Your task to perform on an android device: add a contact in the contacts app Image 0: 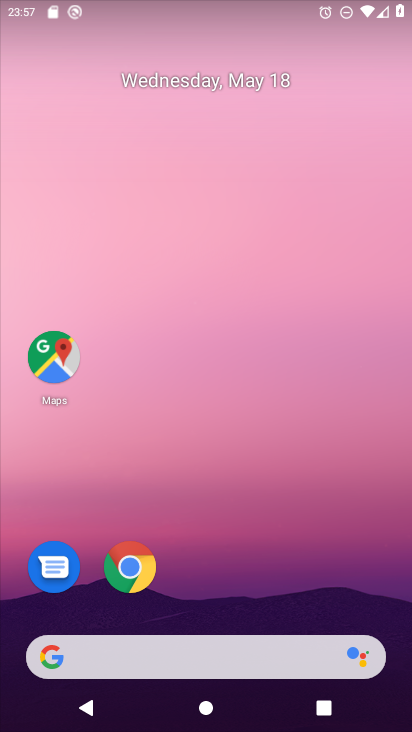
Step 0: drag from (274, 673) to (194, 184)
Your task to perform on an android device: add a contact in the contacts app Image 1: 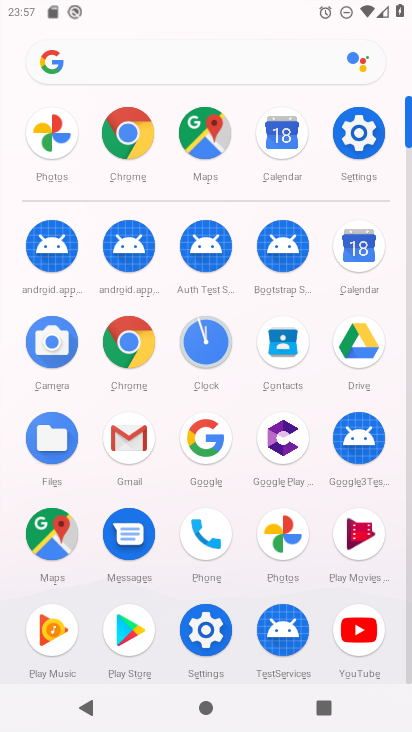
Step 1: click (212, 552)
Your task to perform on an android device: add a contact in the contacts app Image 2: 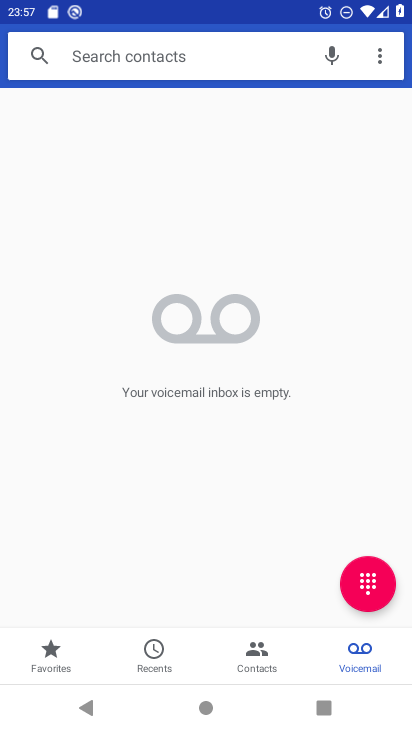
Step 2: click (256, 652)
Your task to perform on an android device: add a contact in the contacts app Image 3: 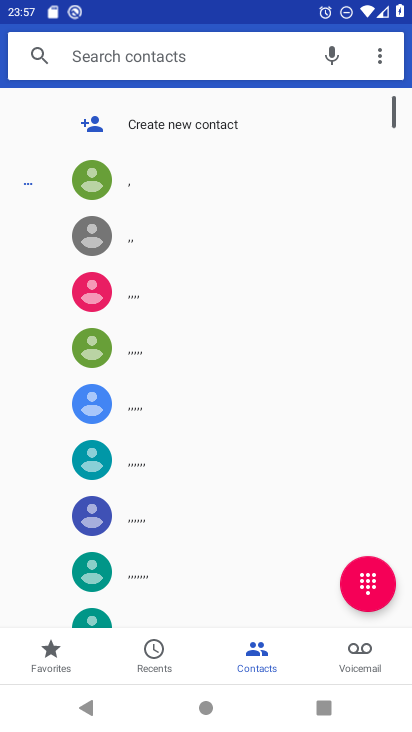
Step 3: click (156, 135)
Your task to perform on an android device: add a contact in the contacts app Image 4: 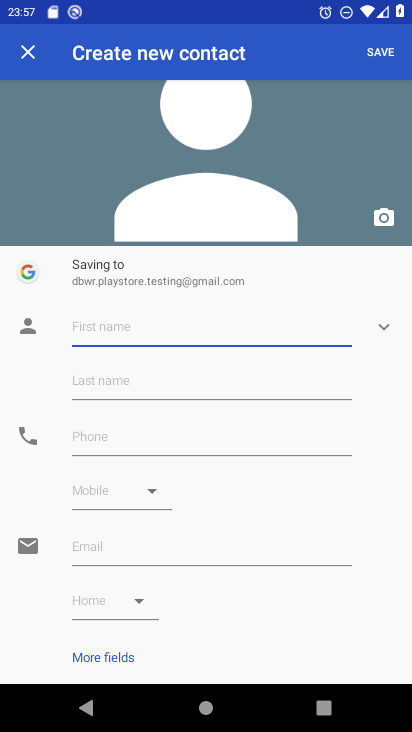
Step 4: click (103, 317)
Your task to perform on an android device: add a contact in the contacts app Image 5: 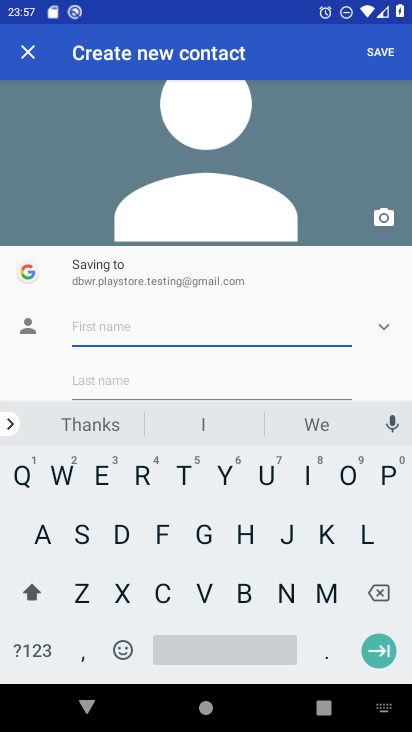
Step 5: click (238, 557)
Your task to perform on an android device: add a contact in the contacts app Image 6: 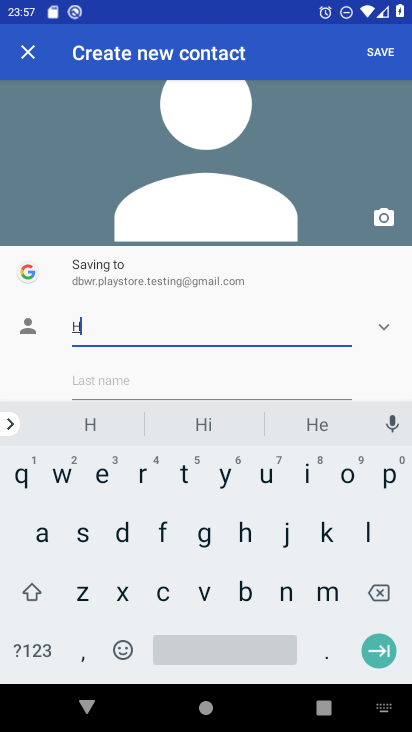
Step 6: click (149, 576)
Your task to perform on an android device: add a contact in the contacts app Image 7: 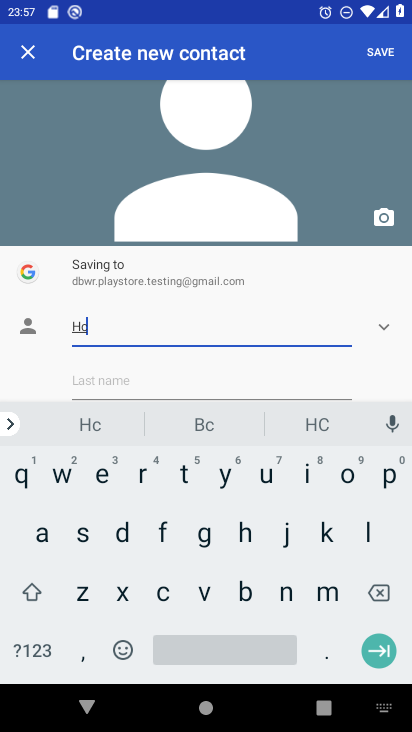
Step 7: click (118, 582)
Your task to perform on an android device: add a contact in the contacts app Image 8: 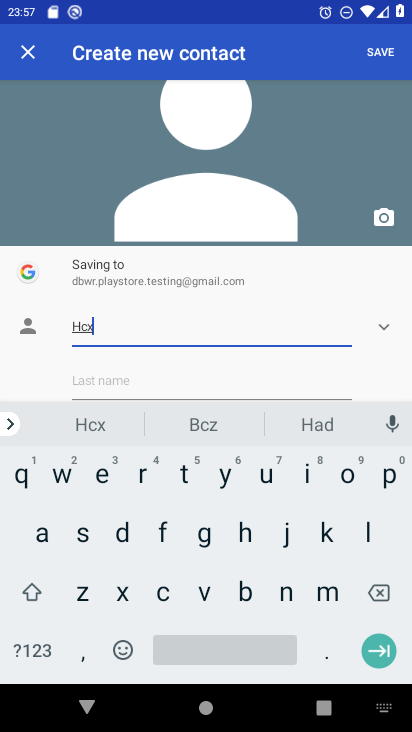
Step 8: drag from (155, 362) to (188, 238)
Your task to perform on an android device: add a contact in the contacts app Image 9: 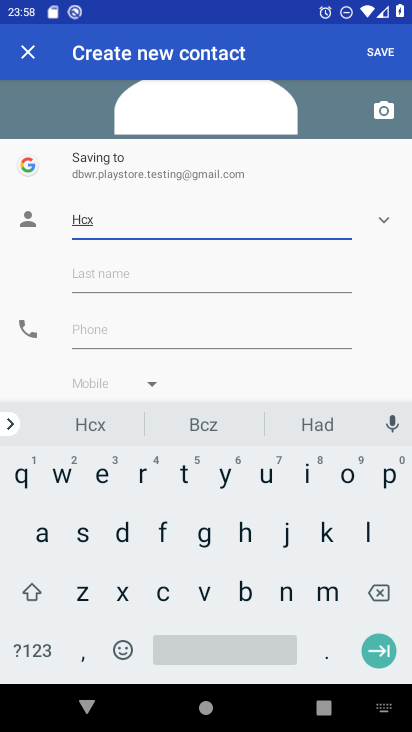
Step 9: click (133, 336)
Your task to perform on an android device: add a contact in the contacts app Image 10: 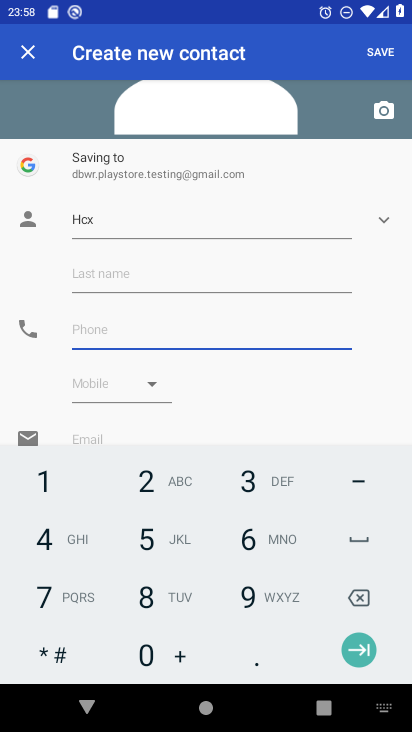
Step 10: click (168, 504)
Your task to perform on an android device: add a contact in the contacts app Image 11: 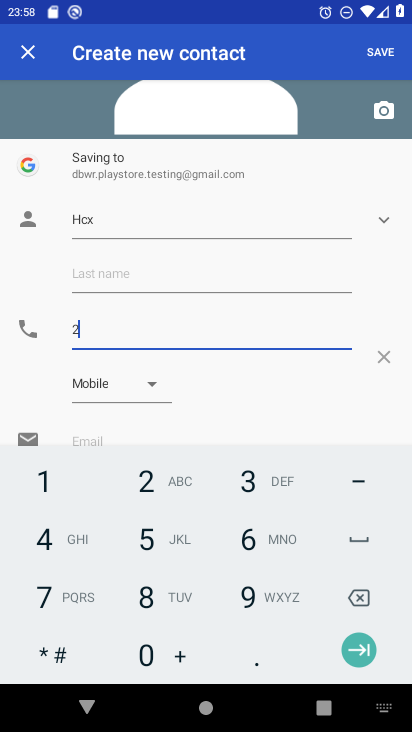
Step 11: click (108, 581)
Your task to perform on an android device: add a contact in the contacts app Image 12: 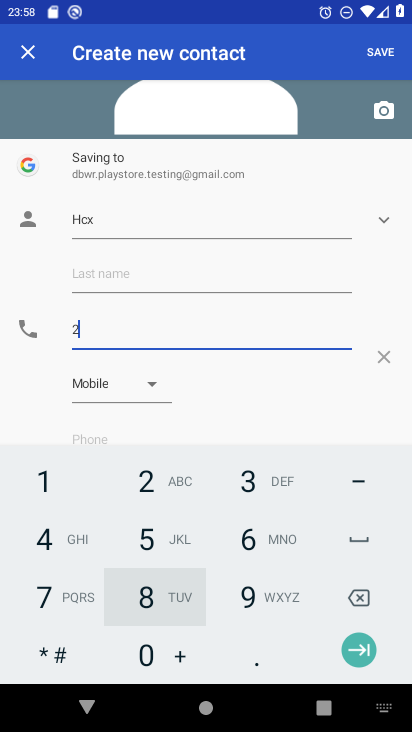
Step 12: click (57, 594)
Your task to perform on an android device: add a contact in the contacts app Image 13: 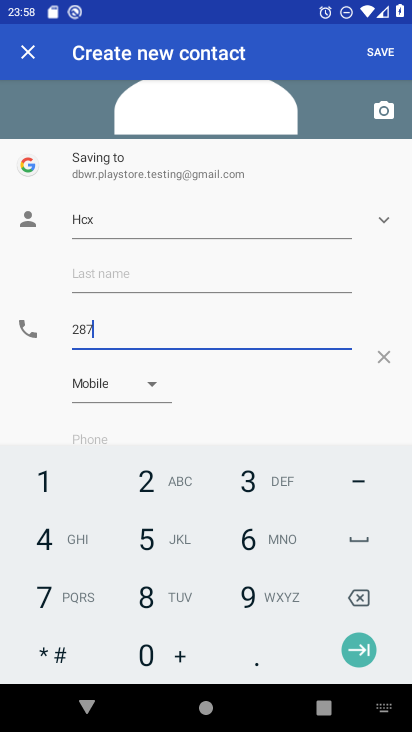
Step 13: click (137, 602)
Your task to perform on an android device: add a contact in the contacts app Image 14: 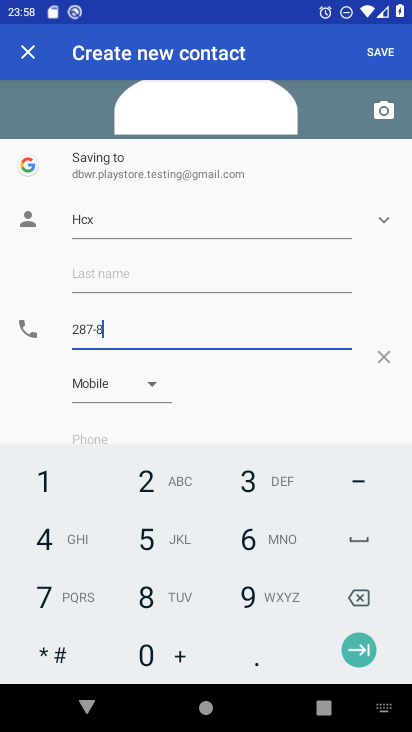
Step 14: click (159, 557)
Your task to perform on an android device: add a contact in the contacts app Image 15: 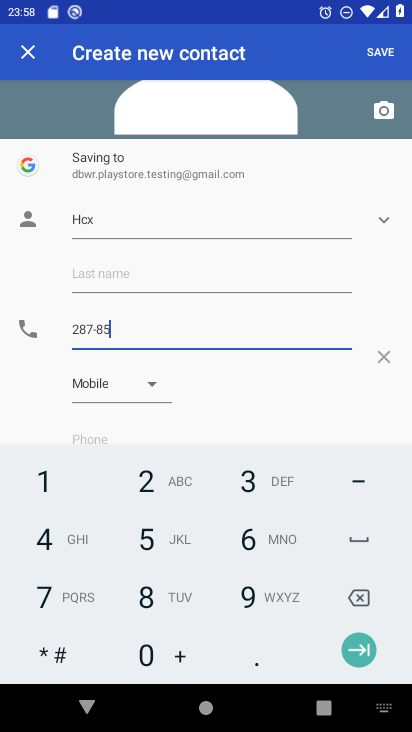
Step 15: click (274, 570)
Your task to perform on an android device: add a contact in the contacts app Image 16: 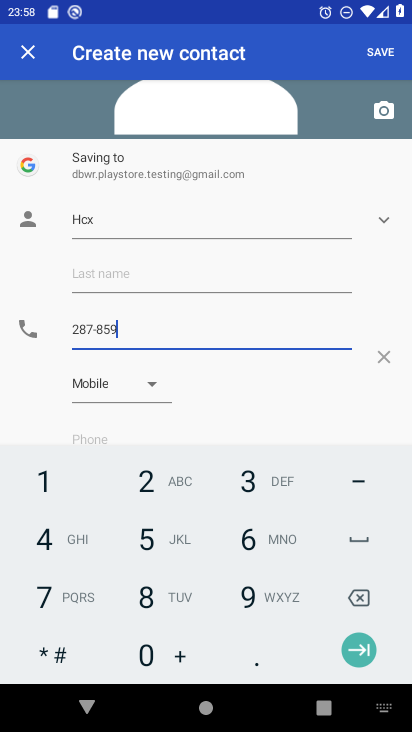
Step 16: click (206, 599)
Your task to perform on an android device: add a contact in the contacts app Image 17: 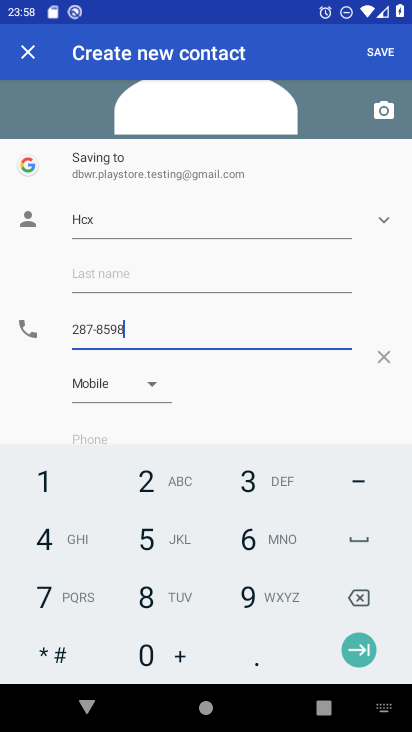
Step 17: click (186, 570)
Your task to perform on an android device: add a contact in the contacts app Image 18: 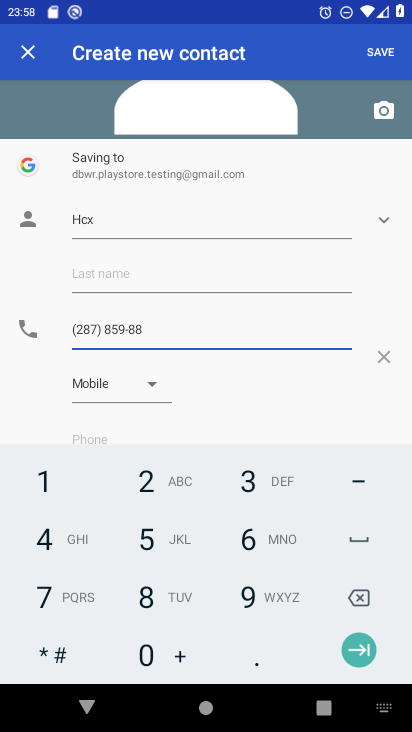
Step 18: click (384, 55)
Your task to perform on an android device: add a contact in the contacts app Image 19: 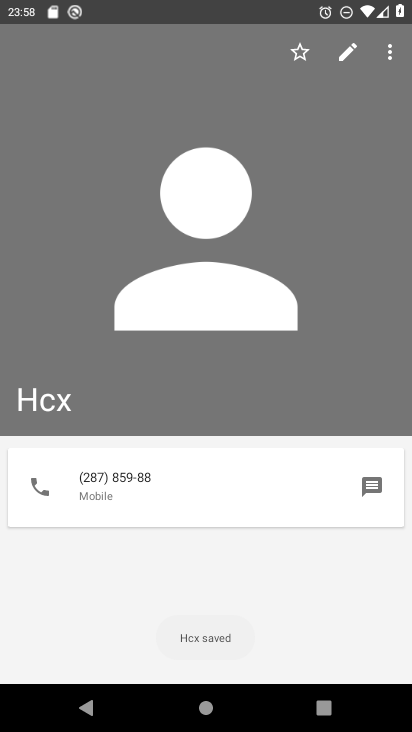
Step 19: task complete